Your task to perform on an android device: Go to battery settings Image 0: 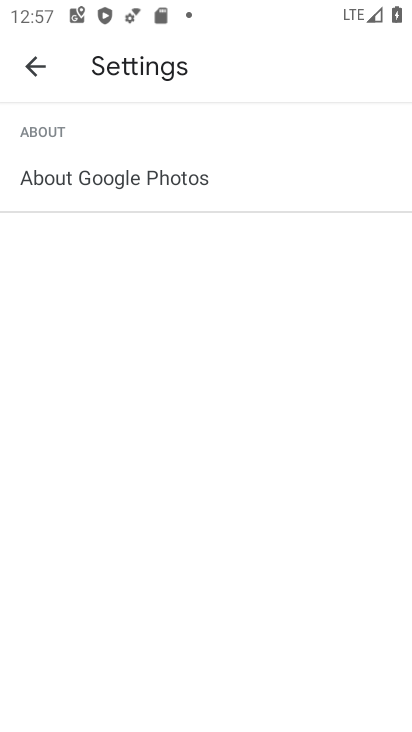
Step 0: press home button
Your task to perform on an android device: Go to battery settings Image 1: 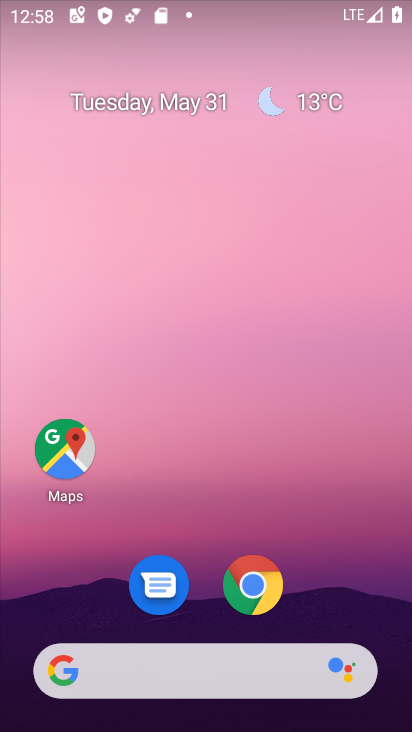
Step 1: drag from (199, 521) to (190, 0)
Your task to perform on an android device: Go to battery settings Image 2: 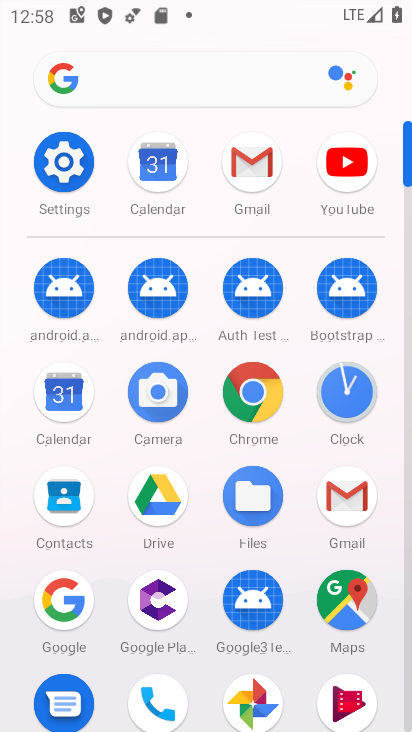
Step 2: click (65, 152)
Your task to perform on an android device: Go to battery settings Image 3: 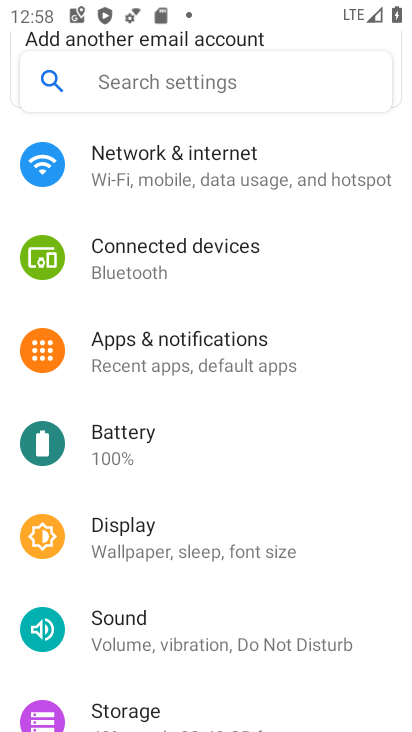
Step 3: click (182, 442)
Your task to perform on an android device: Go to battery settings Image 4: 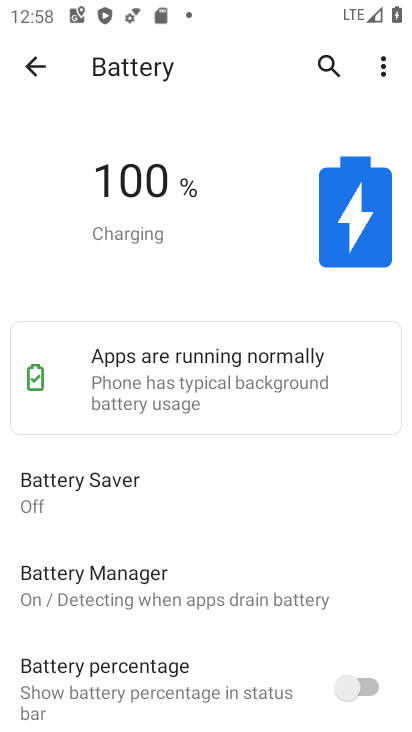
Step 4: task complete